Your task to perform on an android device: Open Reddit.com Image 0: 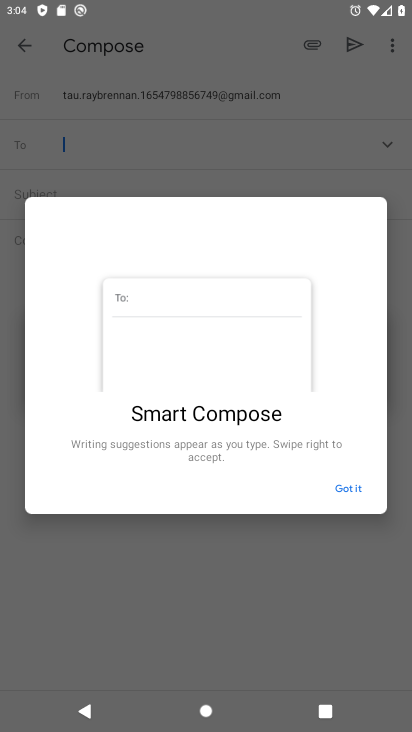
Step 0: click (123, 588)
Your task to perform on an android device: Open Reddit.com Image 1: 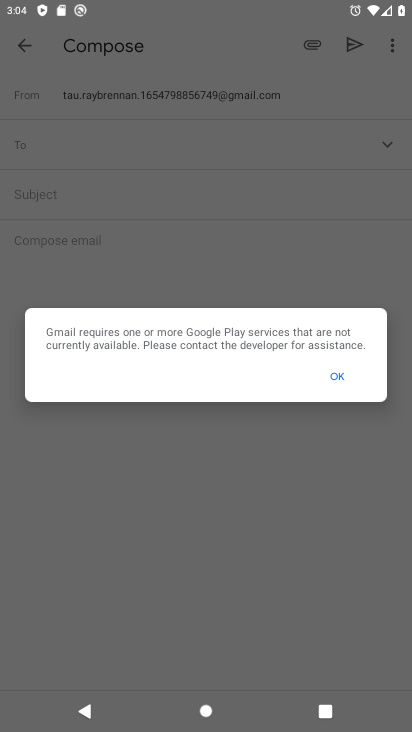
Step 1: press home button
Your task to perform on an android device: Open Reddit.com Image 2: 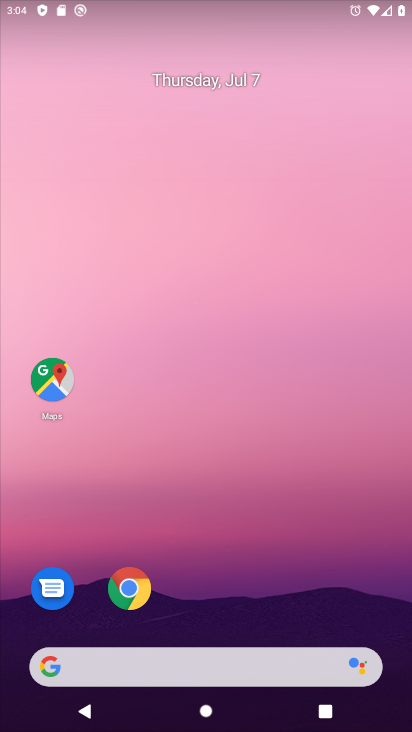
Step 2: drag from (192, 658) to (194, 315)
Your task to perform on an android device: Open Reddit.com Image 3: 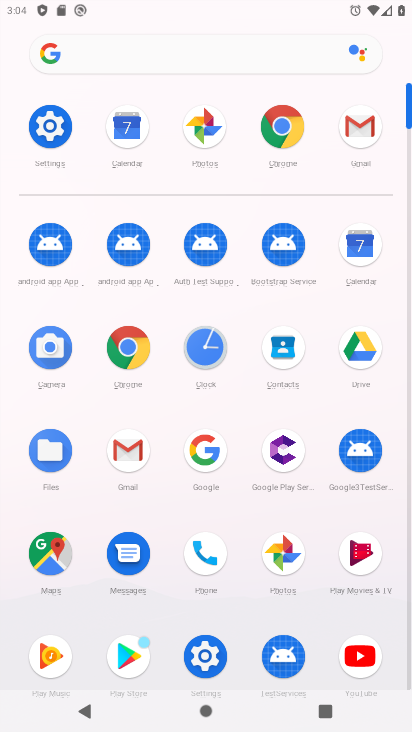
Step 3: click (209, 458)
Your task to perform on an android device: Open Reddit.com Image 4: 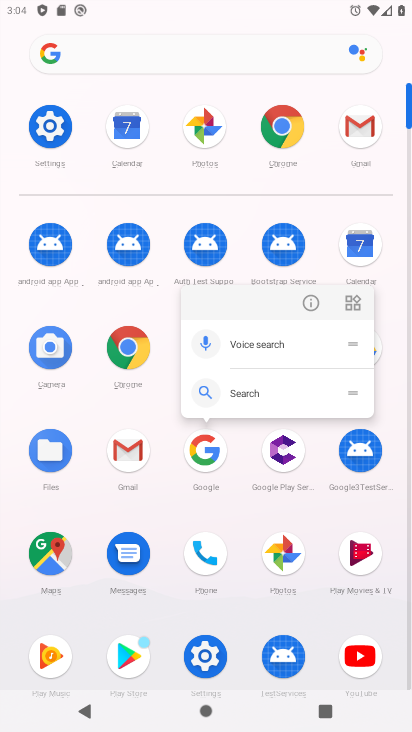
Step 4: click (206, 455)
Your task to perform on an android device: Open Reddit.com Image 5: 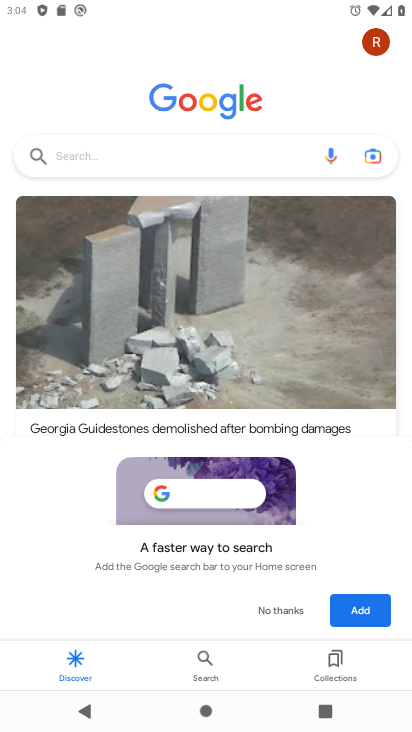
Step 5: click (139, 160)
Your task to perform on an android device: Open Reddit.com Image 6: 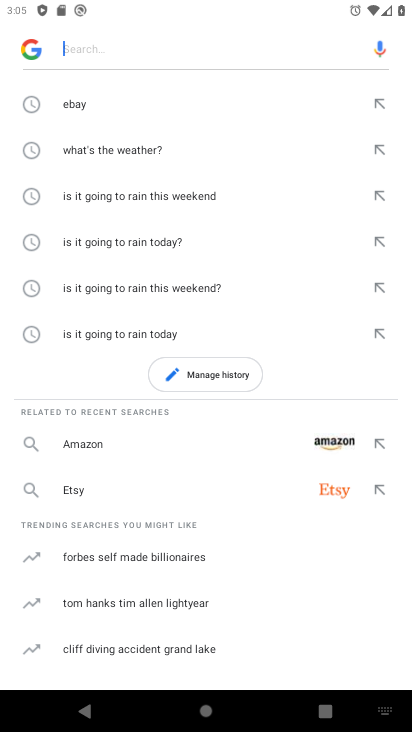
Step 6: type "reddit.com"
Your task to perform on an android device: Open Reddit.com Image 7: 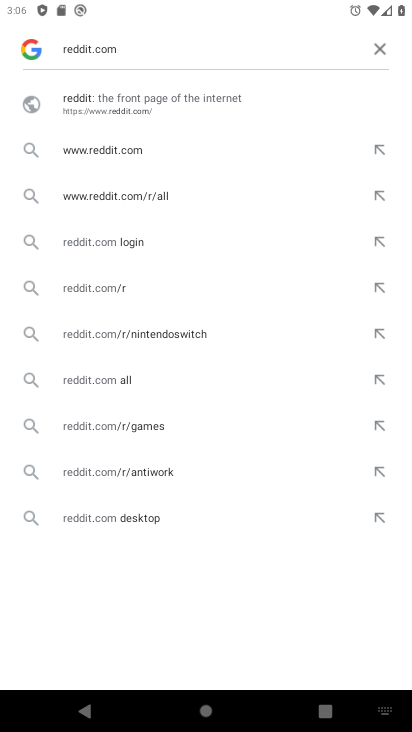
Step 7: click (110, 120)
Your task to perform on an android device: Open Reddit.com Image 8: 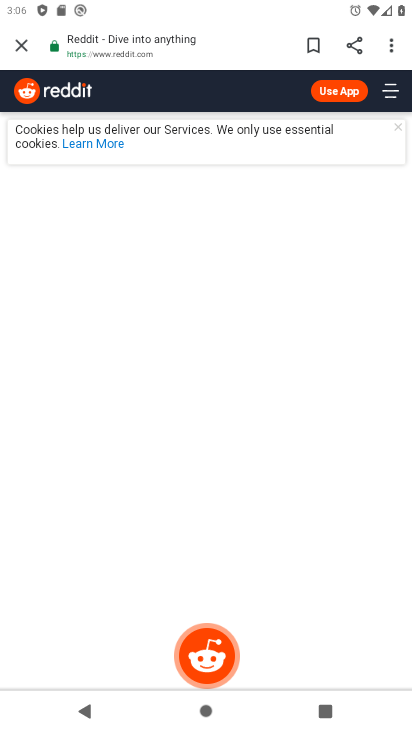
Step 8: task complete